Your task to perform on an android device: Open the calendar app, open the side menu, and click the "Day" option Image 0: 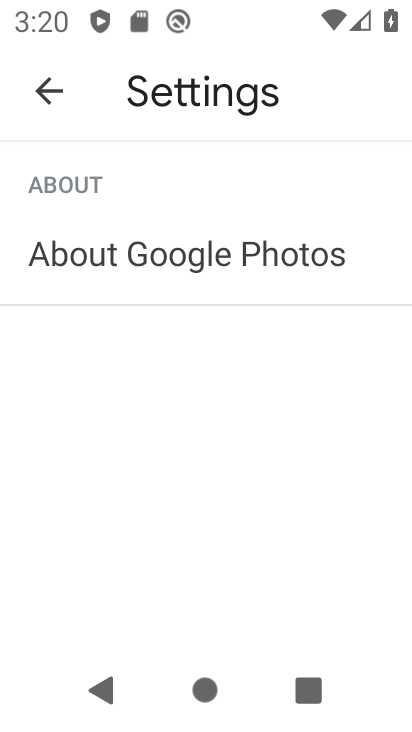
Step 0: press home button
Your task to perform on an android device: Open the calendar app, open the side menu, and click the "Day" option Image 1: 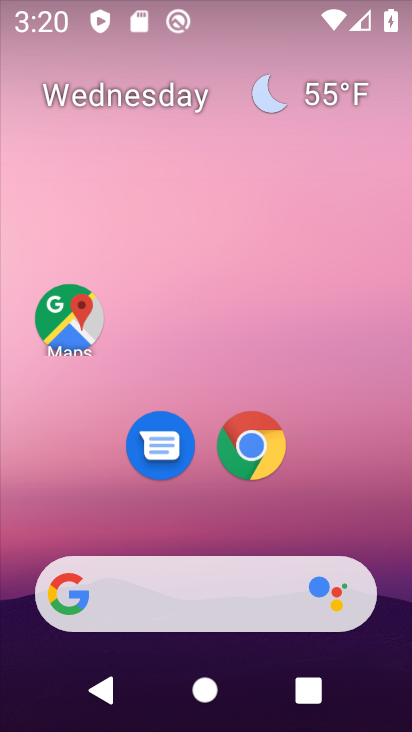
Step 1: drag from (302, 475) to (386, 148)
Your task to perform on an android device: Open the calendar app, open the side menu, and click the "Day" option Image 2: 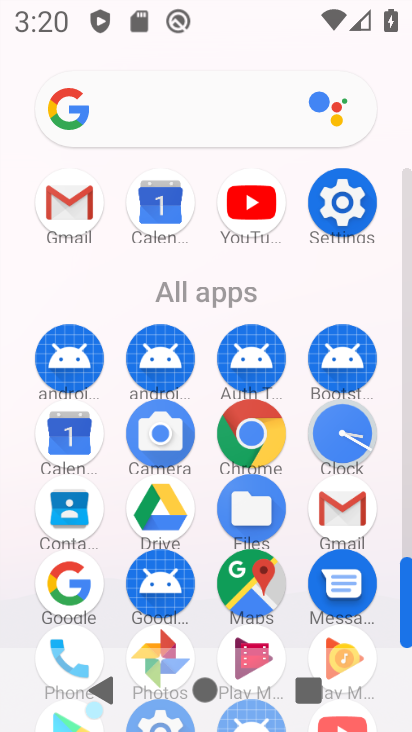
Step 2: click (156, 202)
Your task to perform on an android device: Open the calendar app, open the side menu, and click the "Day" option Image 3: 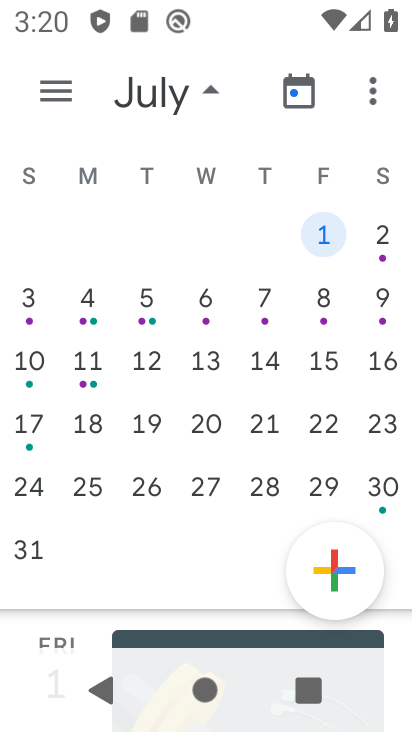
Step 3: click (57, 100)
Your task to perform on an android device: Open the calendar app, open the side menu, and click the "Day" option Image 4: 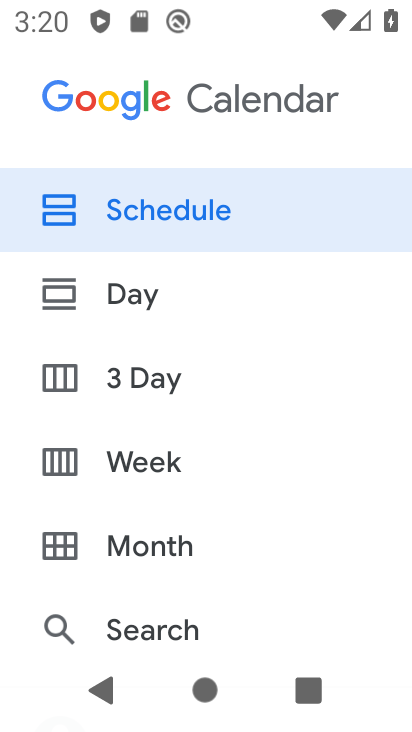
Step 4: click (104, 318)
Your task to perform on an android device: Open the calendar app, open the side menu, and click the "Day" option Image 5: 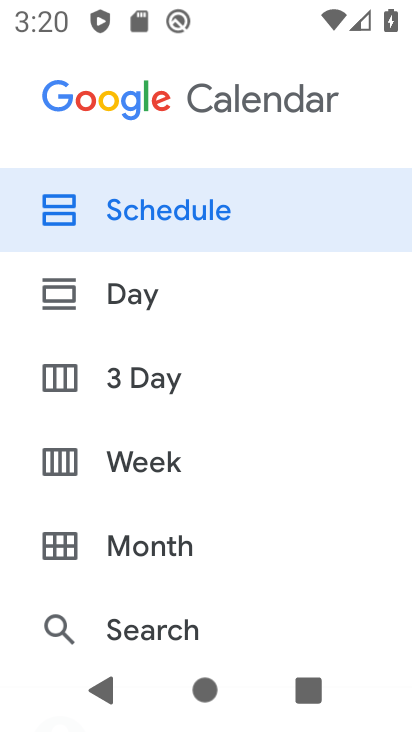
Step 5: click (110, 305)
Your task to perform on an android device: Open the calendar app, open the side menu, and click the "Day" option Image 6: 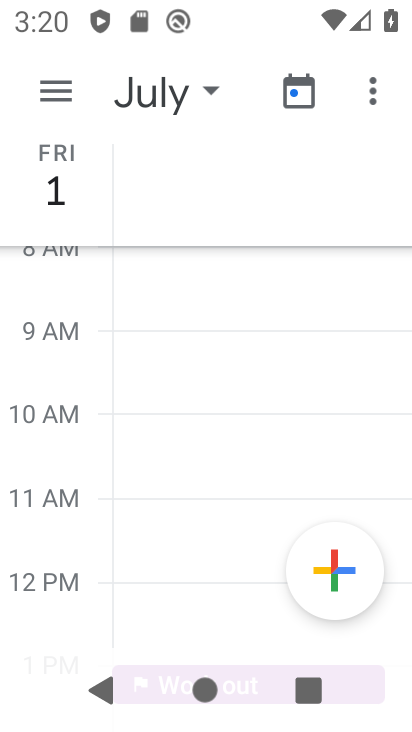
Step 6: task complete